Your task to perform on an android device: check storage Image 0: 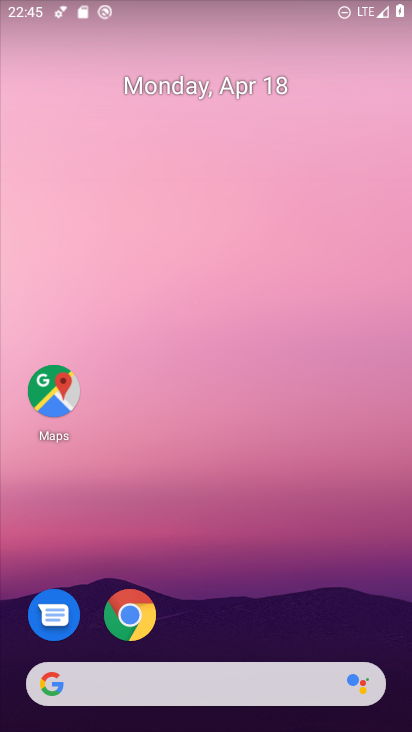
Step 0: drag from (337, 641) to (304, 8)
Your task to perform on an android device: check storage Image 1: 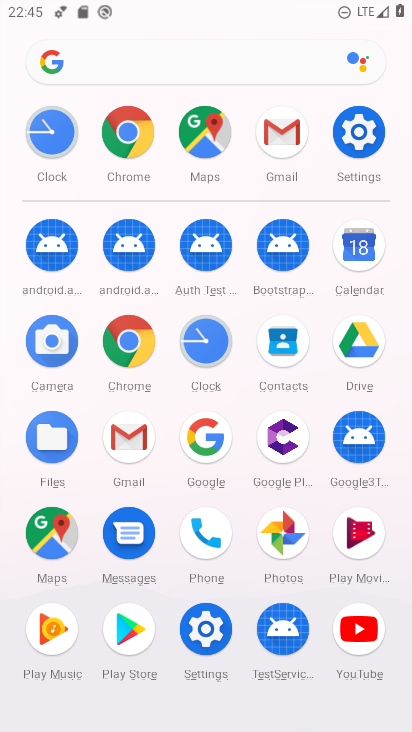
Step 1: click (351, 138)
Your task to perform on an android device: check storage Image 2: 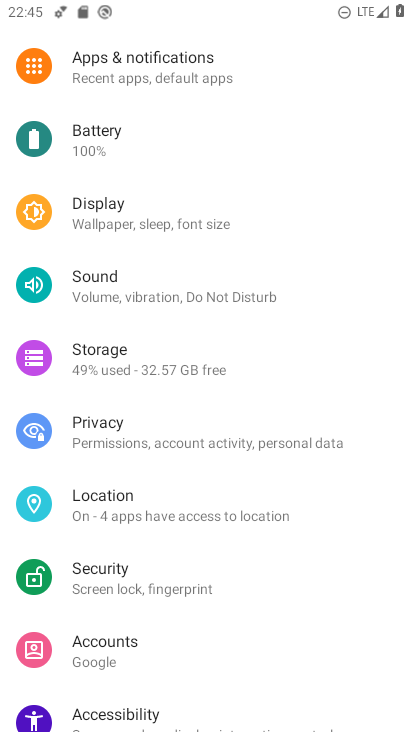
Step 2: click (100, 365)
Your task to perform on an android device: check storage Image 3: 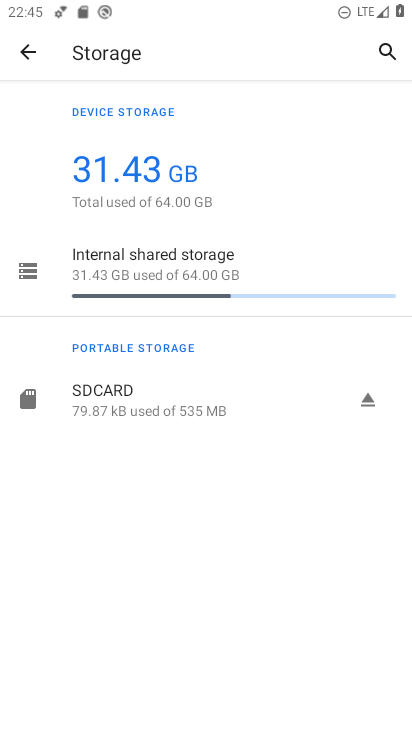
Step 3: click (104, 279)
Your task to perform on an android device: check storage Image 4: 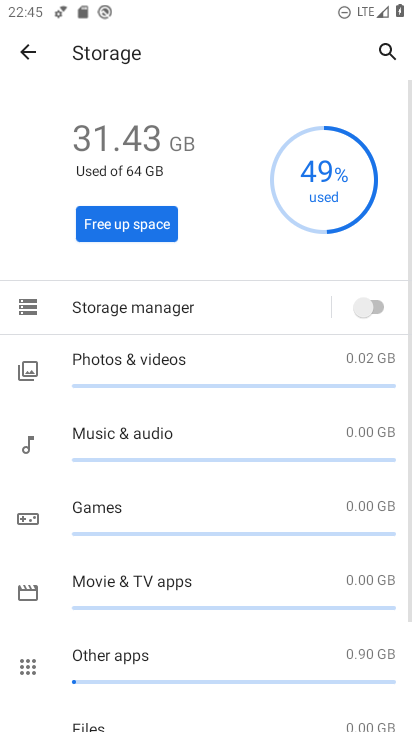
Step 4: task complete